Your task to perform on an android device: star an email in the gmail app Image 0: 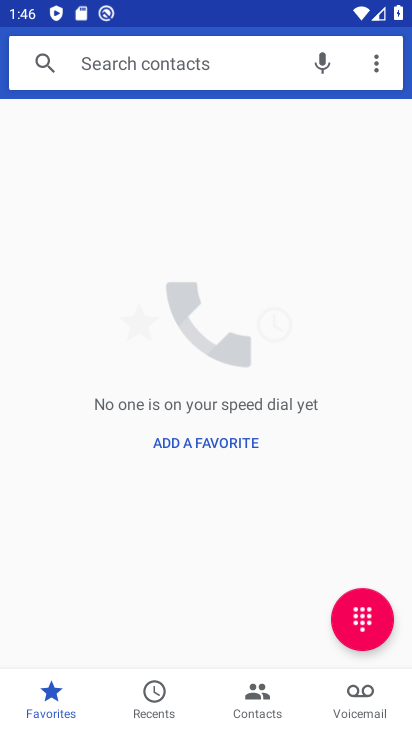
Step 0: press back button
Your task to perform on an android device: star an email in the gmail app Image 1: 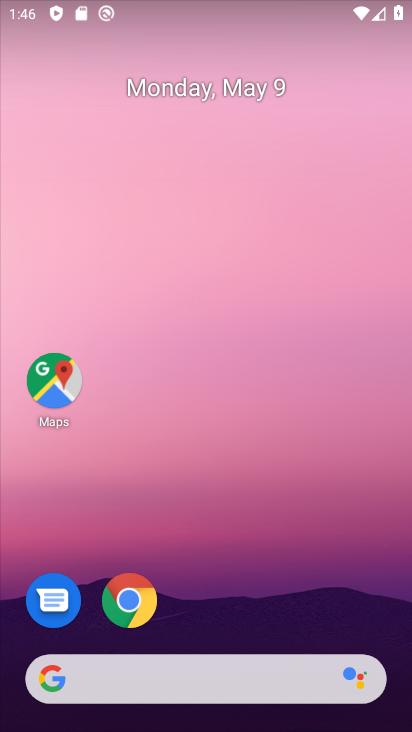
Step 1: drag from (312, 534) to (215, 2)
Your task to perform on an android device: star an email in the gmail app Image 2: 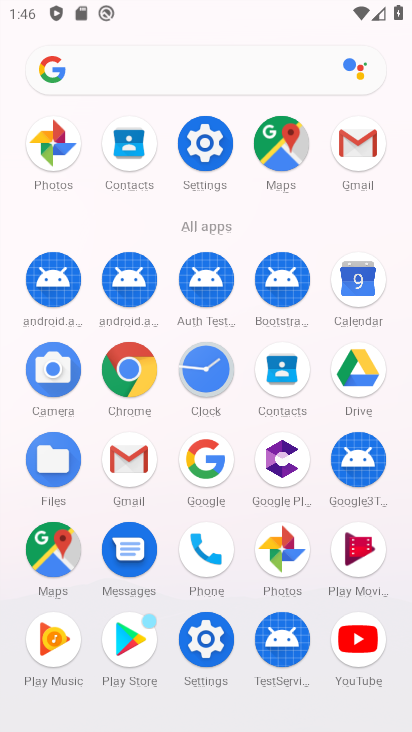
Step 2: drag from (6, 469) to (33, 218)
Your task to perform on an android device: star an email in the gmail app Image 3: 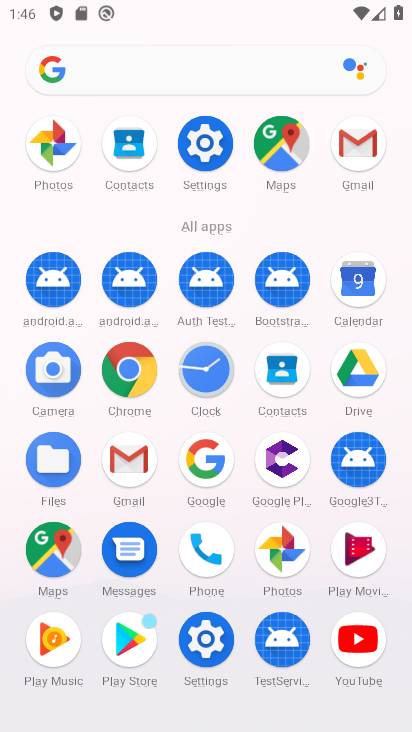
Step 3: click (126, 450)
Your task to perform on an android device: star an email in the gmail app Image 4: 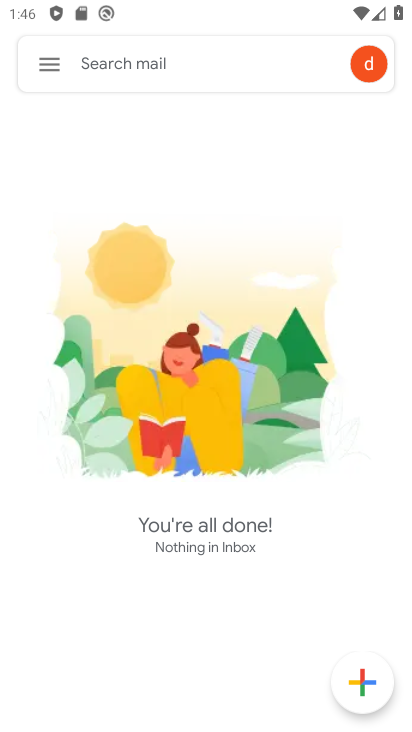
Step 4: click (51, 67)
Your task to perform on an android device: star an email in the gmail app Image 5: 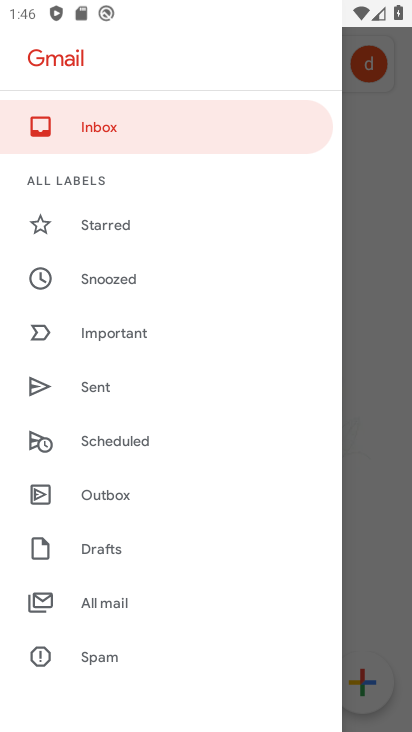
Step 5: drag from (194, 249) to (194, 550)
Your task to perform on an android device: star an email in the gmail app Image 6: 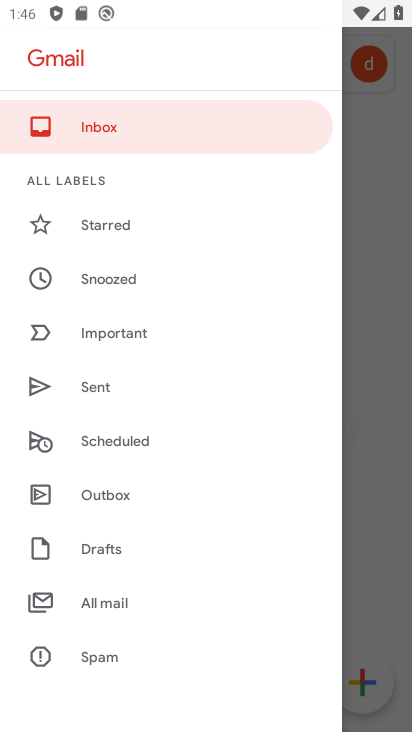
Step 6: click (128, 222)
Your task to perform on an android device: star an email in the gmail app Image 7: 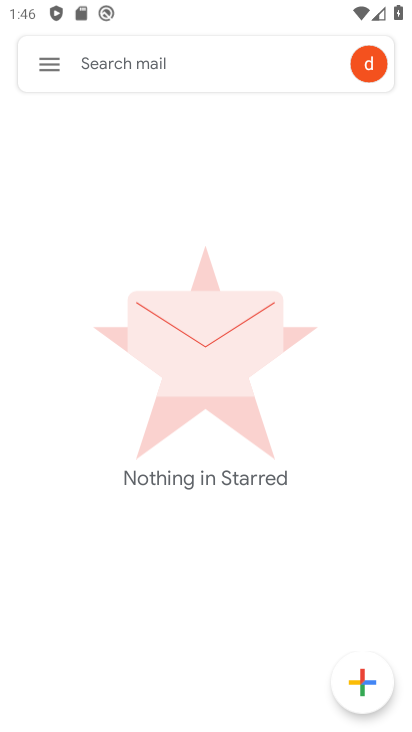
Step 7: click (44, 66)
Your task to perform on an android device: star an email in the gmail app Image 8: 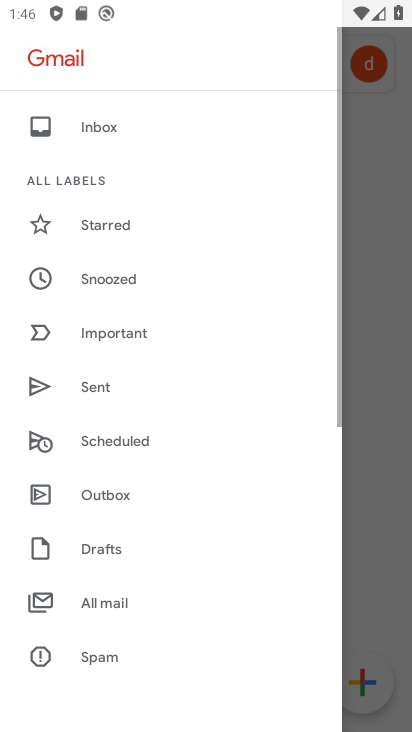
Step 8: drag from (195, 232) to (224, 619)
Your task to perform on an android device: star an email in the gmail app Image 9: 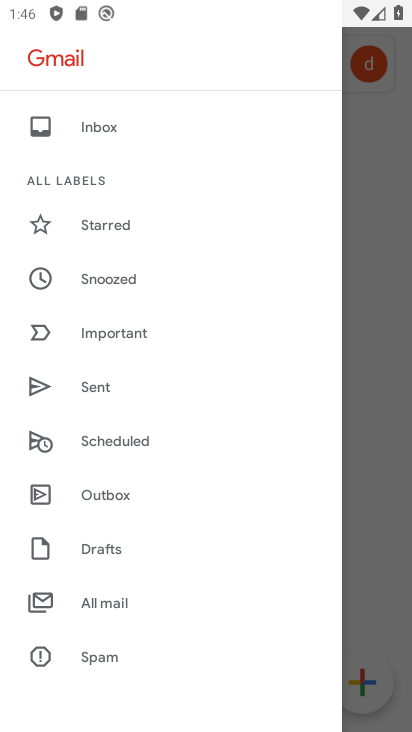
Step 9: click (134, 592)
Your task to perform on an android device: star an email in the gmail app Image 10: 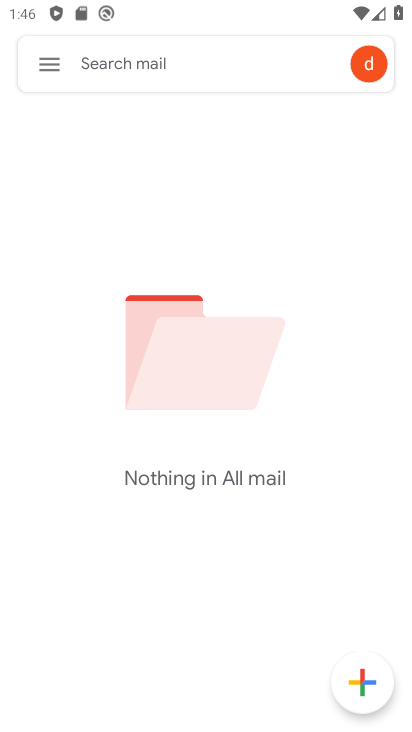
Step 10: click (54, 58)
Your task to perform on an android device: star an email in the gmail app Image 11: 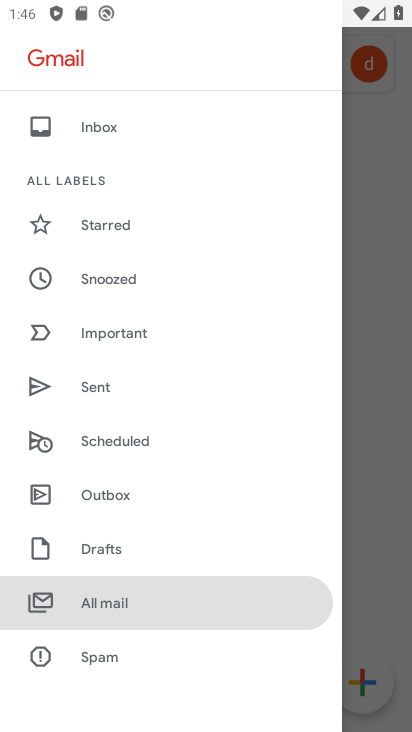
Step 11: click (152, 119)
Your task to perform on an android device: star an email in the gmail app Image 12: 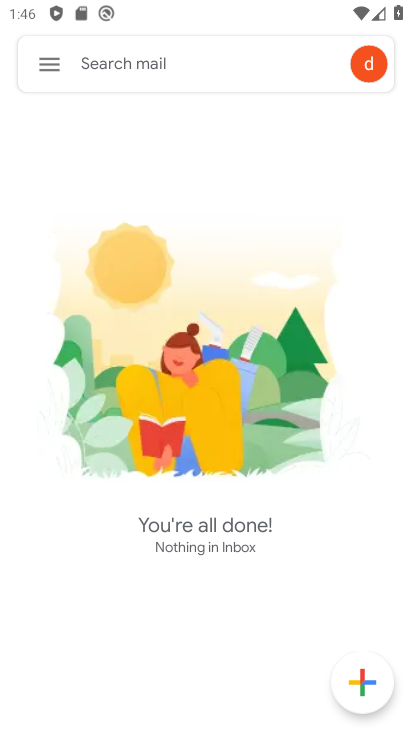
Step 12: task complete